Your task to perform on an android device: visit the assistant section in the google photos Image 0: 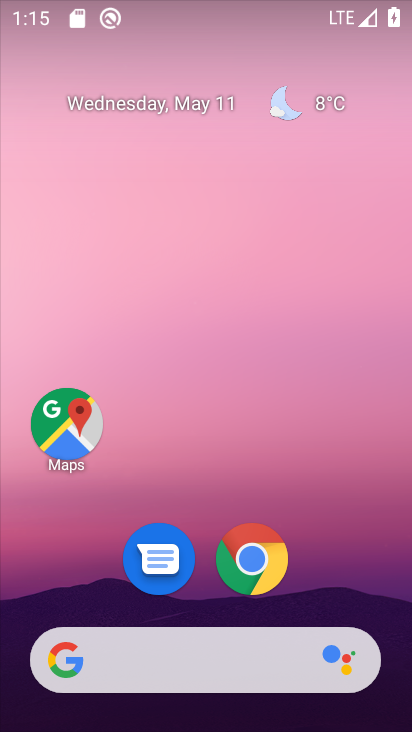
Step 0: drag from (203, 726) to (203, 129)
Your task to perform on an android device: visit the assistant section in the google photos Image 1: 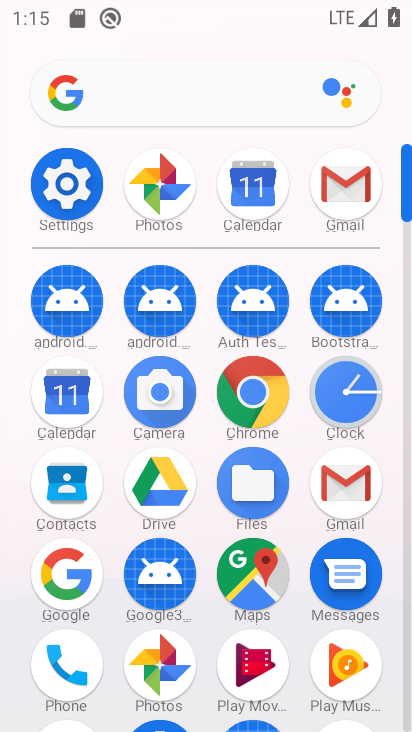
Step 1: click (153, 183)
Your task to perform on an android device: visit the assistant section in the google photos Image 2: 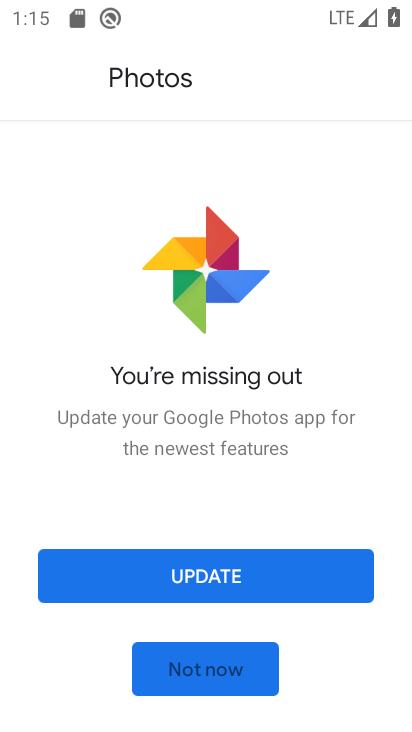
Step 2: task complete